Your task to perform on an android device: turn on sleep mode Image 0: 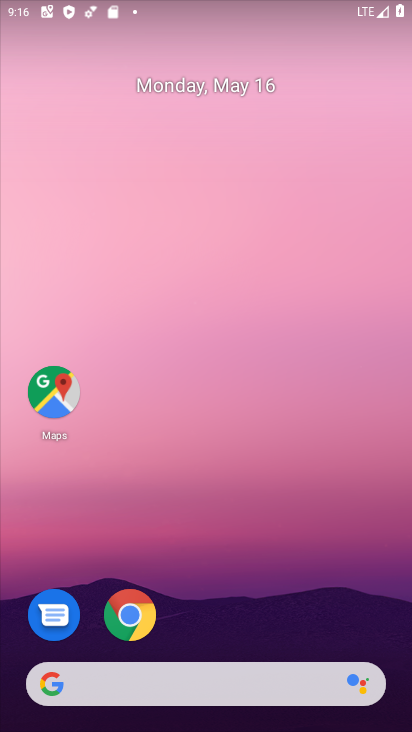
Step 0: drag from (269, 686) to (228, 163)
Your task to perform on an android device: turn on sleep mode Image 1: 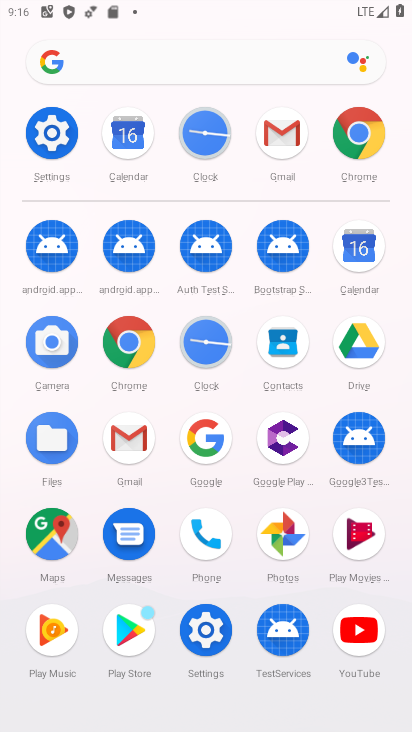
Step 1: click (49, 141)
Your task to perform on an android device: turn on sleep mode Image 2: 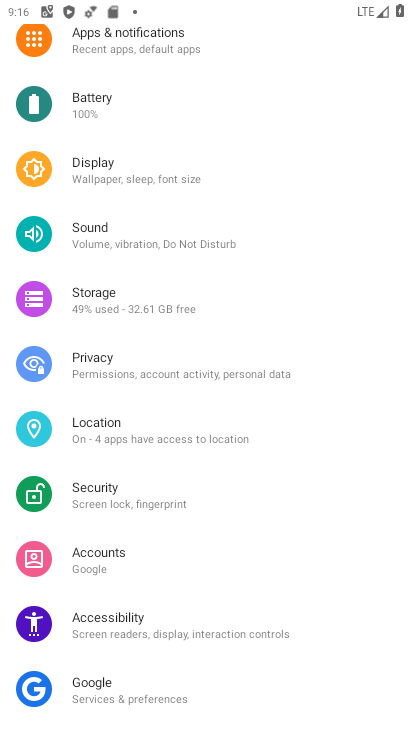
Step 2: click (162, 180)
Your task to perform on an android device: turn on sleep mode Image 3: 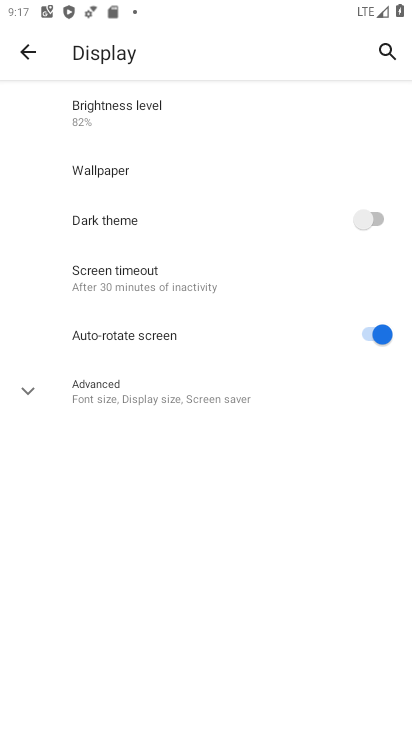
Step 3: click (155, 394)
Your task to perform on an android device: turn on sleep mode Image 4: 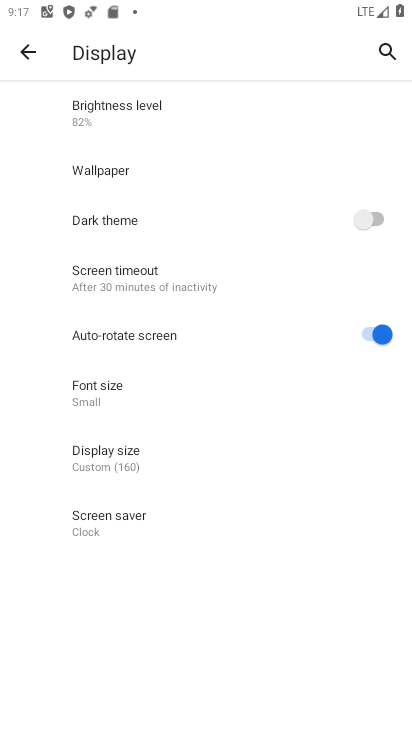
Step 4: task complete